Your task to perform on an android device: What is the news today? Image 0: 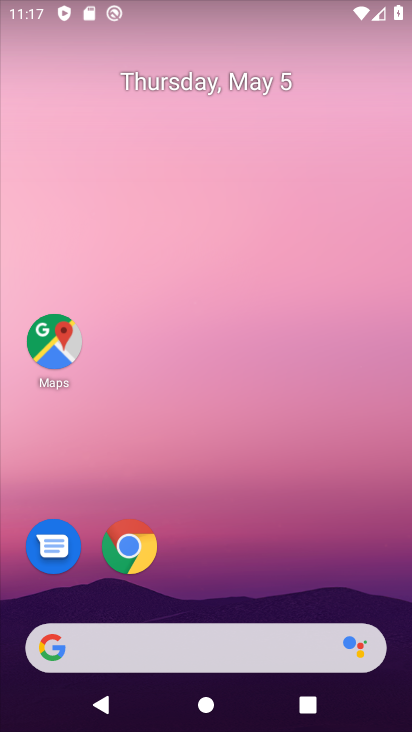
Step 0: click (138, 545)
Your task to perform on an android device: What is the news today? Image 1: 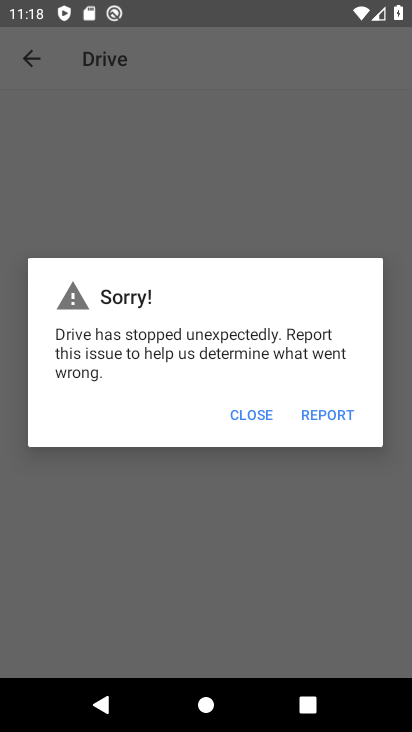
Step 1: click (259, 417)
Your task to perform on an android device: What is the news today? Image 2: 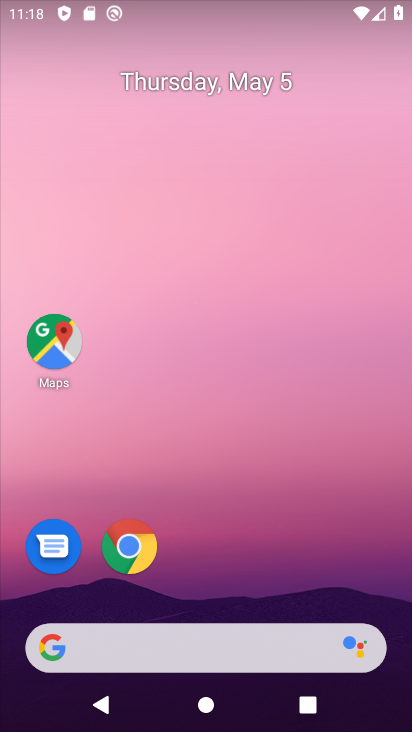
Step 2: click (189, 635)
Your task to perform on an android device: What is the news today? Image 3: 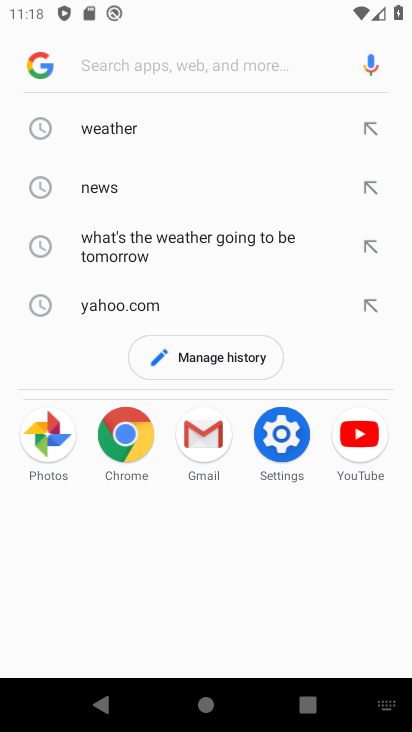
Step 3: click (71, 185)
Your task to perform on an android device: What is the news today? Image 4: 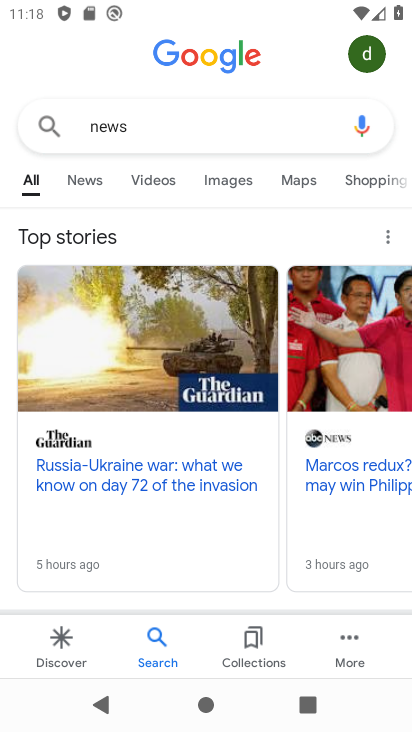
Step 4: click (90, 183)
Your task to perform on an android device: What is the news today? Image 5: 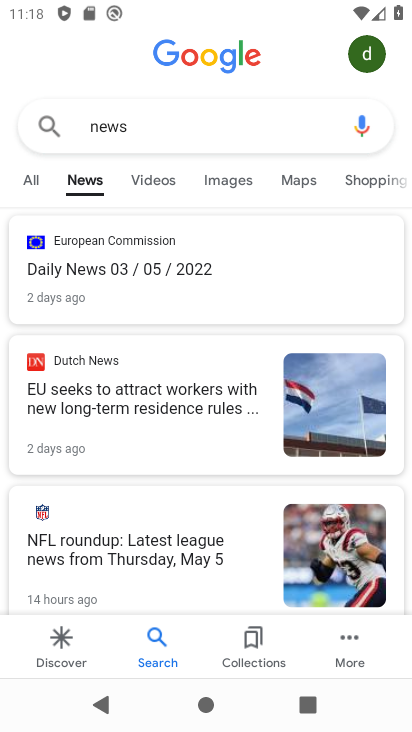
Step 5: task complete